Your task to perform on an android device: Go to location settings Image 0: 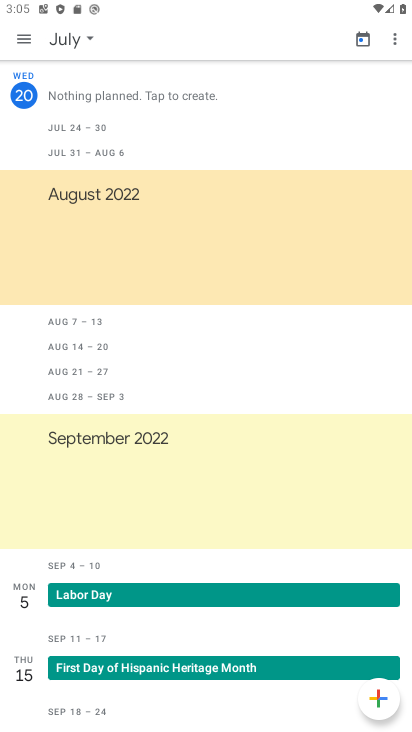
Step 0: press home button
Your task to perform on an android device: Go to location settings Image 1: 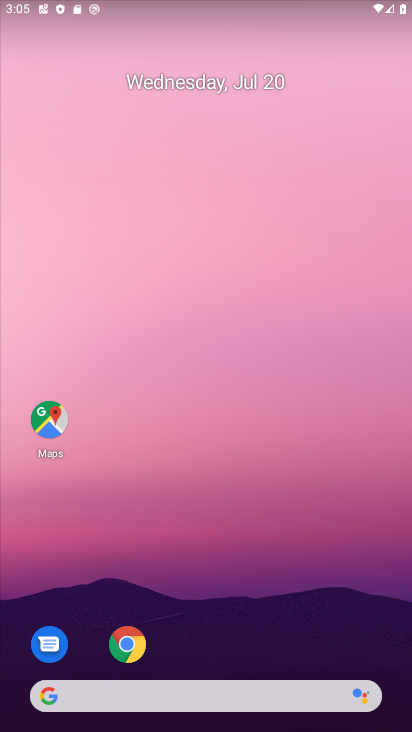
Step 1: drag from (277, 644) to (218, 142)
Your task to perform on an android device: Go to location settings Image 2: 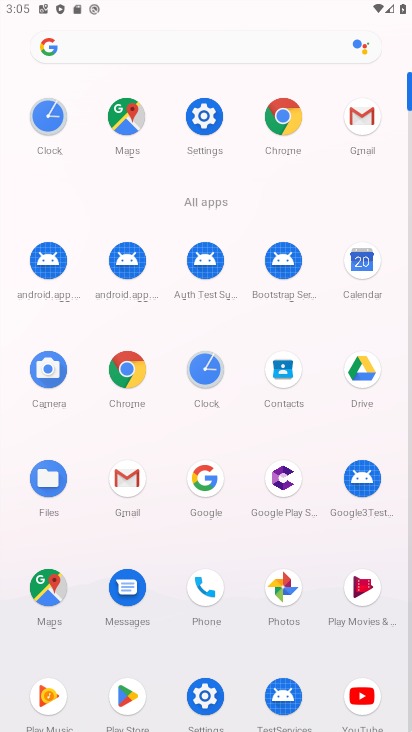
Step 2: click (198, 156)
Your task to perform on an android device: Go to location settings Image 3: 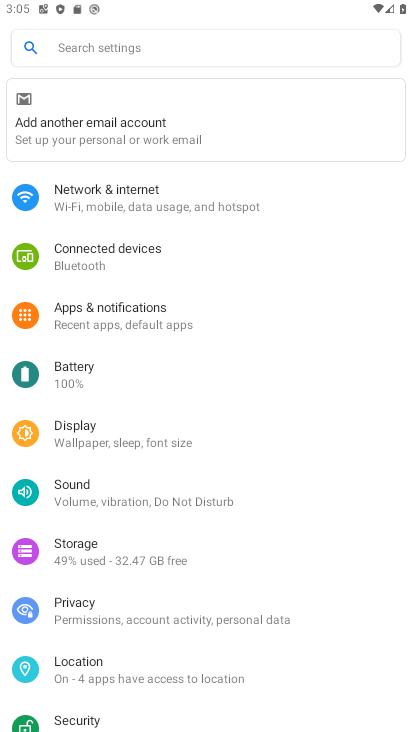
Step 3: click (123, 666)
Your task to perform on an android device: Go to location settings Image 4: 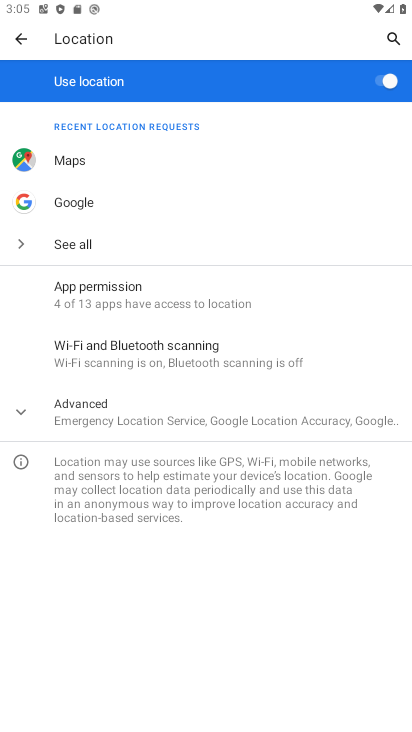
Step 4: click (212, 429)
Your task to perform on an android device: Go to location settings Image 5: 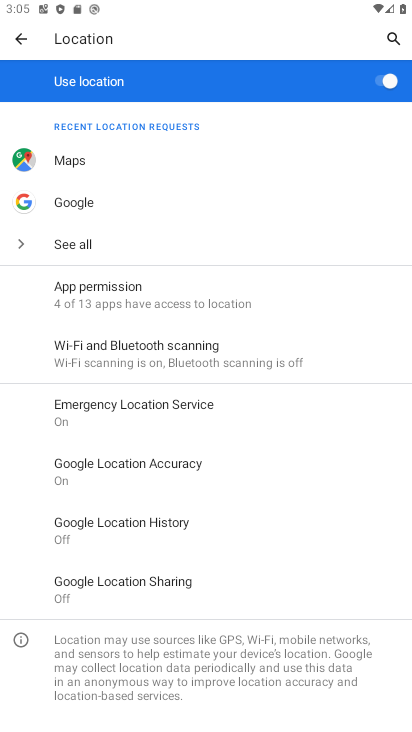
Step 5: task complete